Your task to perform on an android device: change the clock display to analog Image 0: 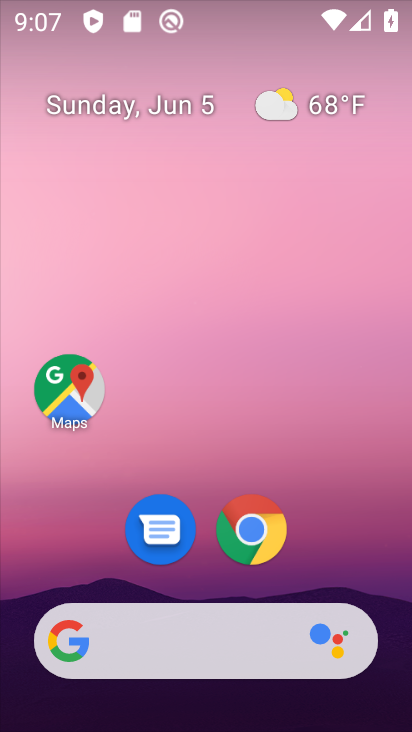
Step 0: drag from (245, 600) to (330, 63)
Your task to perform on an android device: change the clock display to analog Image 1: 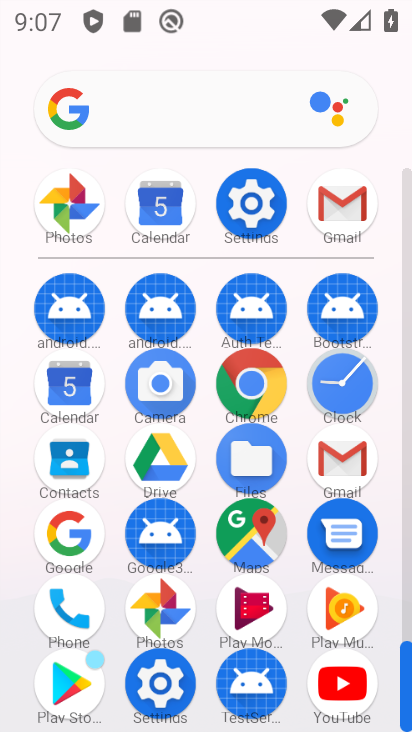
Step 1: click (348, 371)
Your task to perform on an android device: change the clock display to analog Image 2: 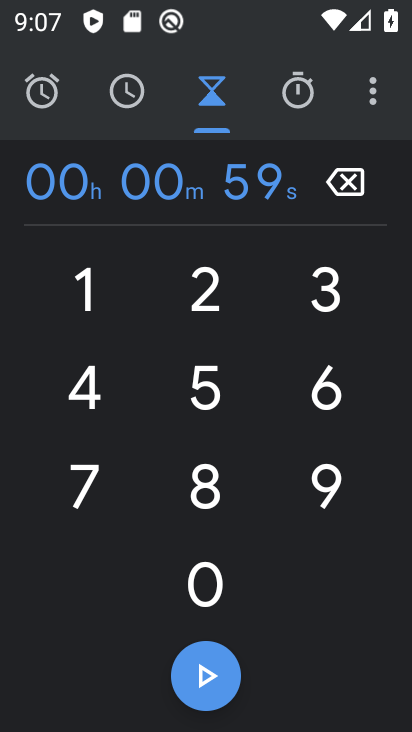
Step 2: click (361, 106)
Your task to perform on an android device: change the clock display to analog Image 3: 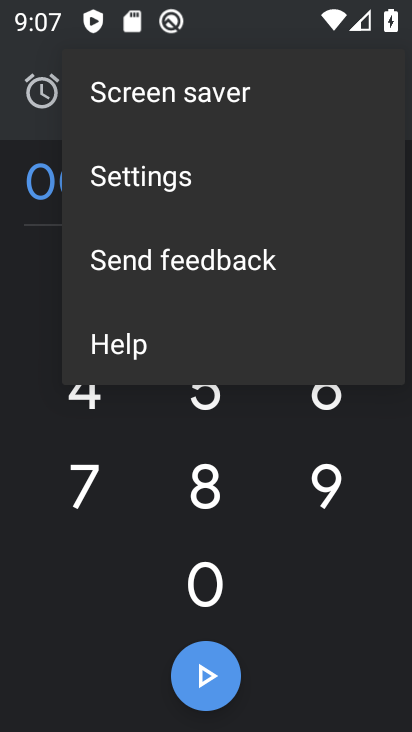
Step 3: click (195, 185)
Your task to perform on an android device: change the clock display to analog Image 4: 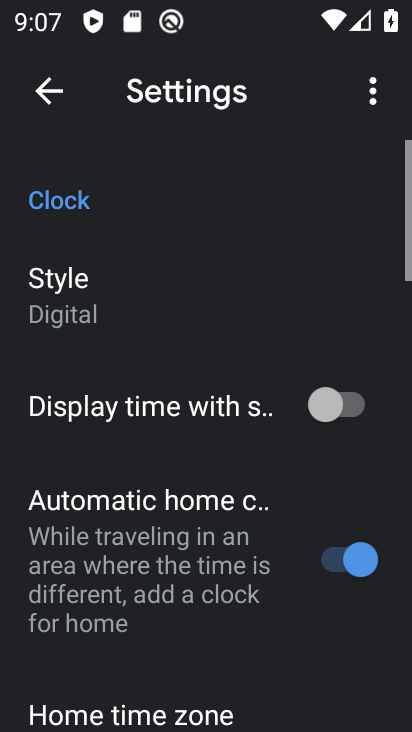
Step 4: click (124, 291)
Your task to perform on an android device: change the clock display to analog Image 5: 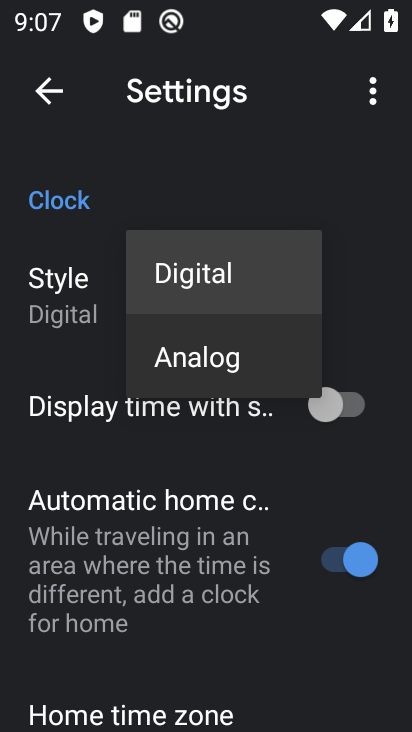
Step 5: click (199, 366)
Your task to perform on an android device: change the clock display to analog Image 6: 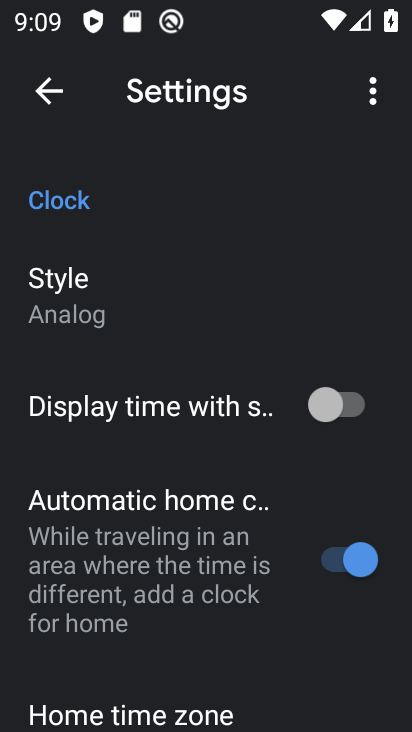
Step 6: task complete